Your task to perform on an android device: turn vacation reply on in the gmail app Image 0: 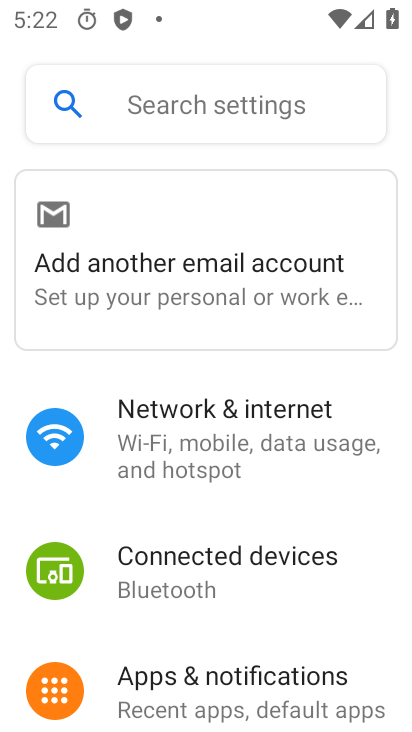
Step 0: press home button
Your task to perform on an android device: turn vacation reply on in the gmail app Image 1: 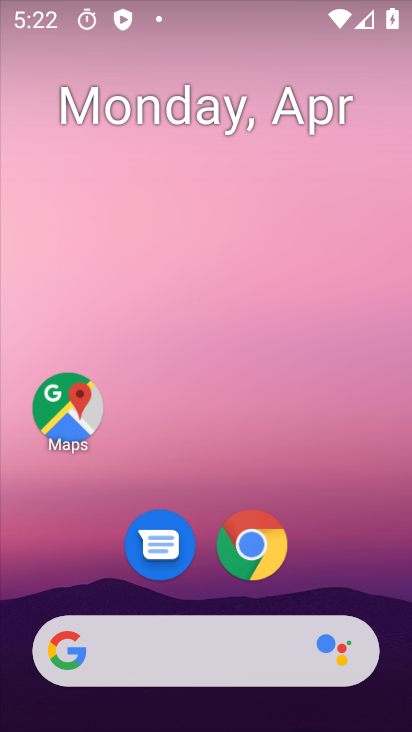
Step 1: drag from (336, 529) to (363, 100)
Your task to perform on an android device: turn vacation reply on in the gmail app Image 2: 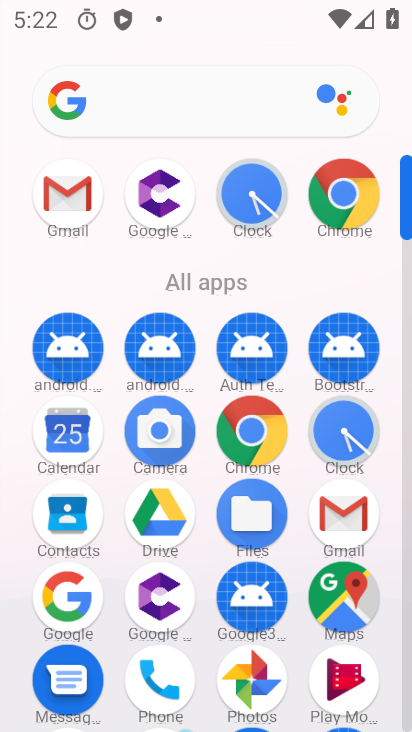
Step 2: click (350, 507)
Your task to perform on an android device: turn vacation reply on in the gmail app Image 3: 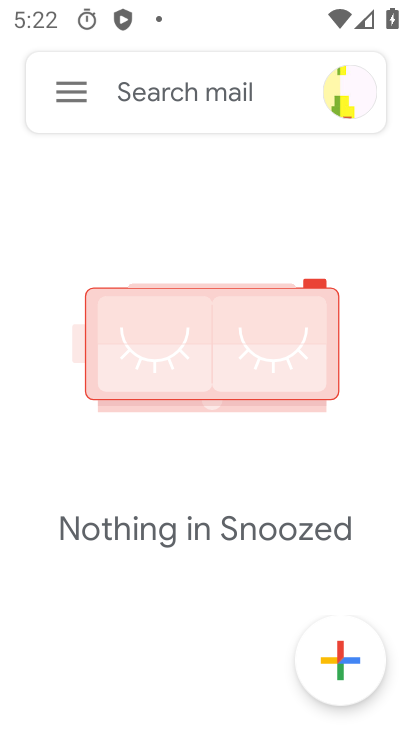
Step 3: click (70, 90)
Your task to perform on an android device: turn vacation reply on in the gmail app Image 4: 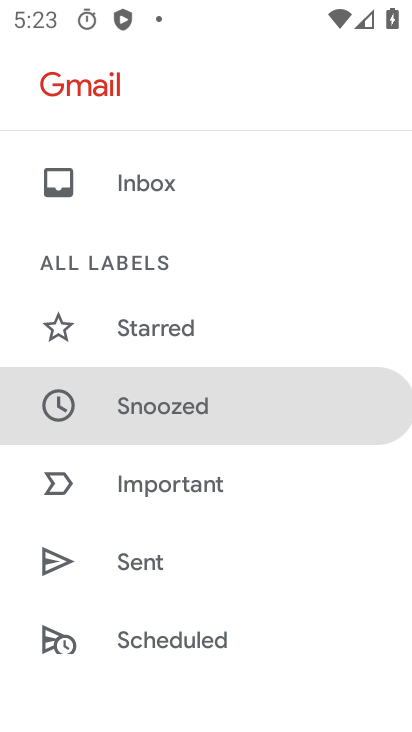
Step 4: drag from (254, 569) to (345, 107)
Your task to perform on an android device: turn vacation reply on in the gmail app Image 5: 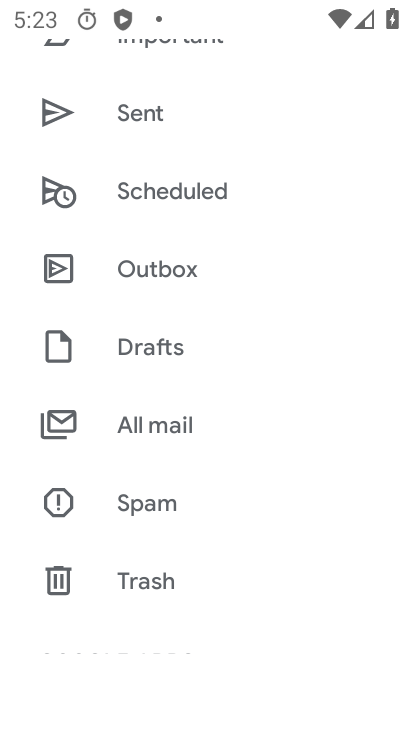
Step 5: drag from (276, 613) to (282, 195)
Your task to perform on an android device: turn vacation reply on in the gmail app Image 6: 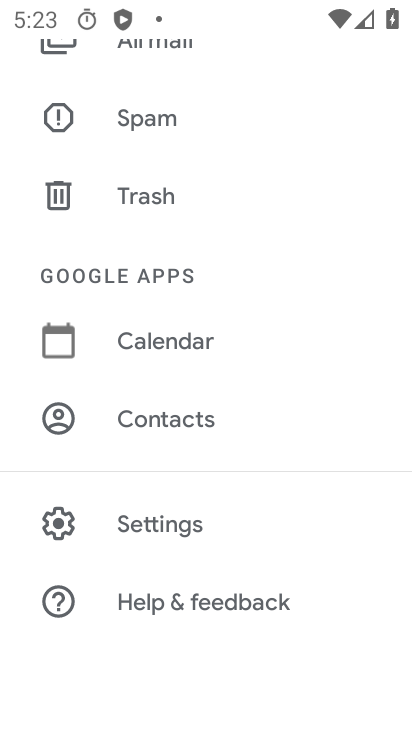
Step 6: click (171, 524)
Your task to perform on an android device: turn vacation reply on in the gmail app Image 7: 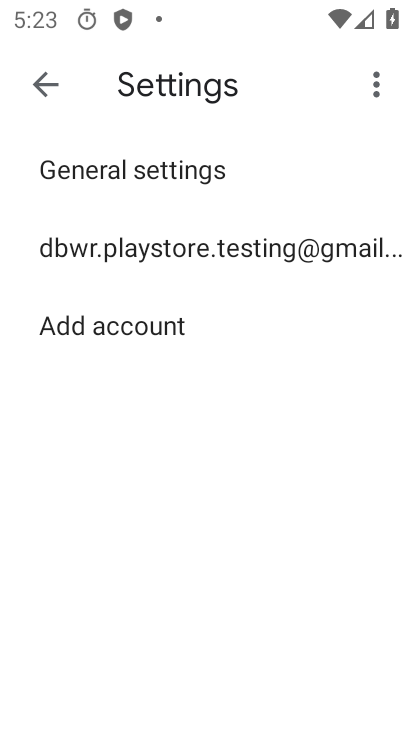
Step 7: click (222, 246)
Your task to perform on an android device: turn vacation reply on in the gmail app Image 8: 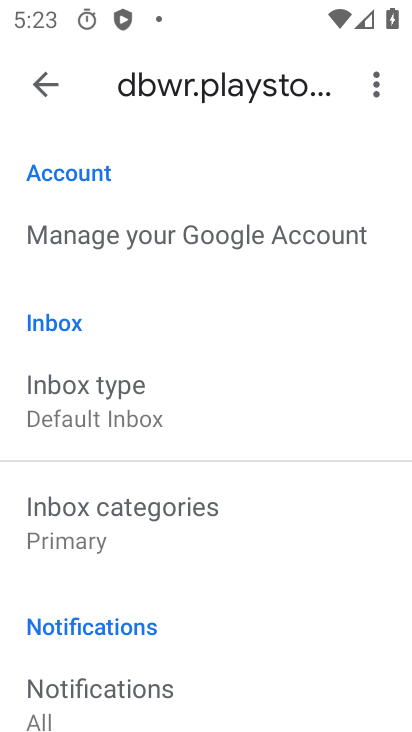
Step 8: drag from (278, 618) to (337, 322)
Your task to perform on an android device: turn vacation reply on in the gmail app Image 9: 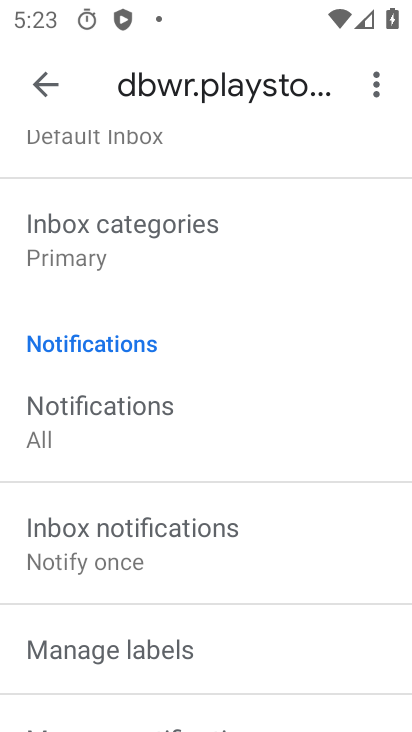
Step 9: drag from (288, 637) to (321, 368)
Your task to perform on an android device: turn vacation reply on in the gmail app Image 10: 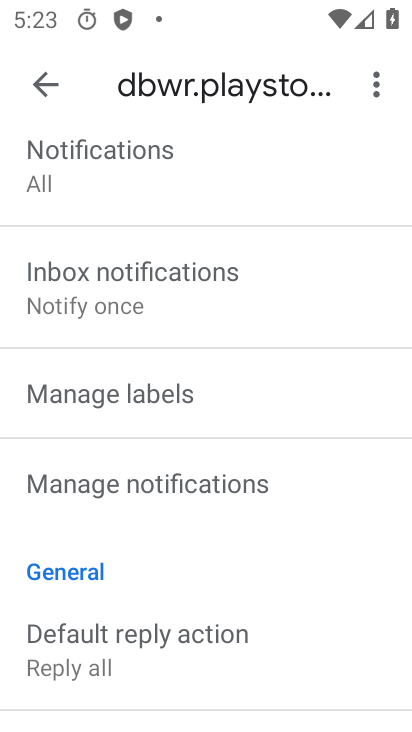
Step 10: drag from (284, 661) to (314, 375)
Your task to perform on an android device: turn vacation reply on in the gmail app Image 11: 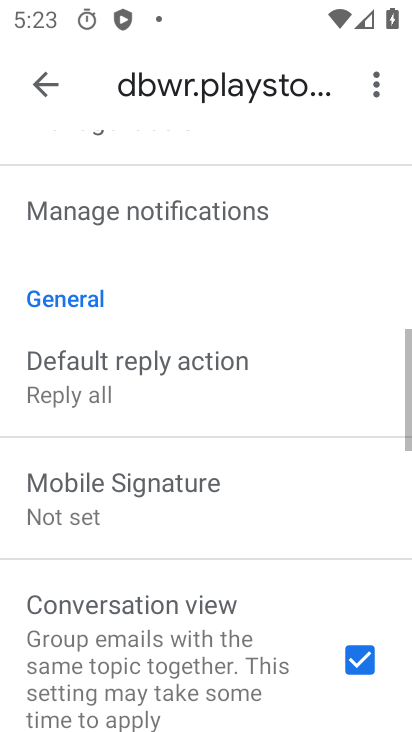
Step 11: drag from (312, 565) to (321, 403)
Your task to perform on an android device: turn vacation reply on in the gmail app Image 12: 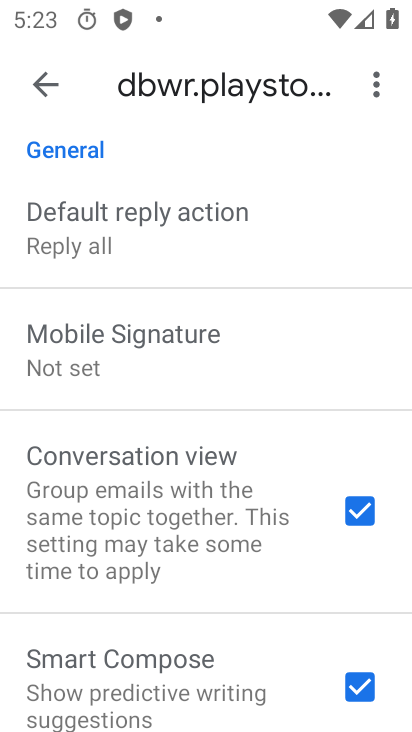
Step 12: drag from (263, 646) to (309, 352)
Your task to perform on an android device: turn vacation reply on in the gmail app Image 13: 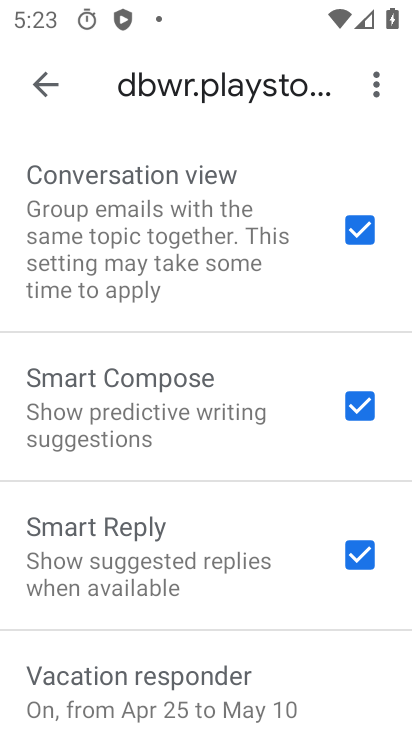
Step 13: click (167, 675)
Your task to perform on an android device: turn vacation reply on in the gmail app Image 14: 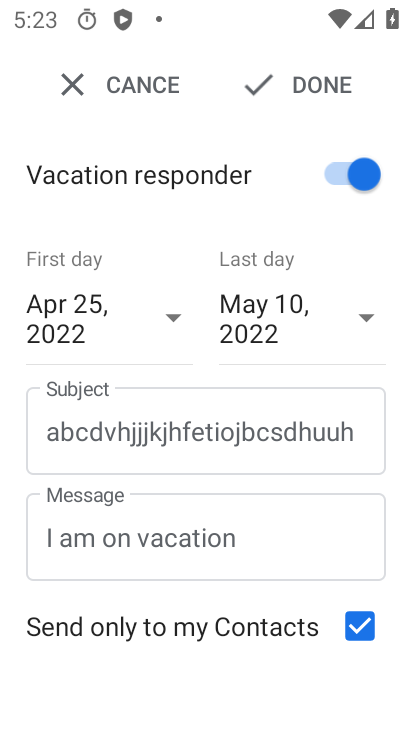
Step 14: click (292, 75)
Your task to perform on an android device: turn vacation reply on in the gmail app Image 15: 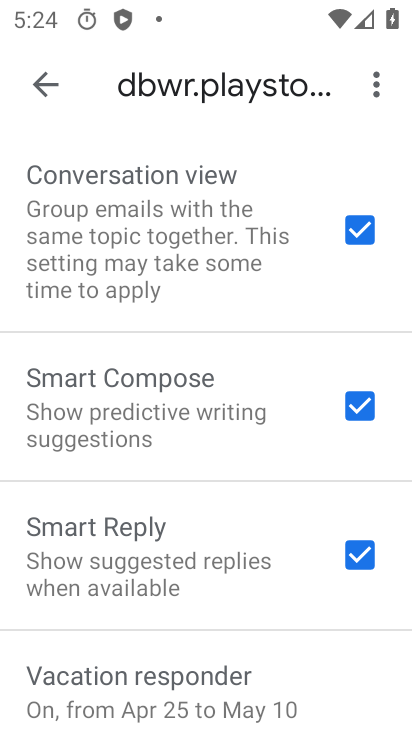
Step 15: task complete